Your task to perform on an android device: Go to Yahoo.com Image 0: 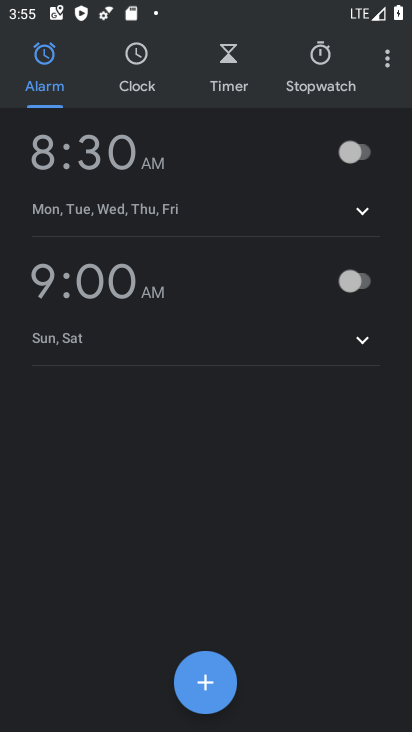
Step 0: press home button
Your task to perform on an android device: Go to Yahoo.com Image 1: 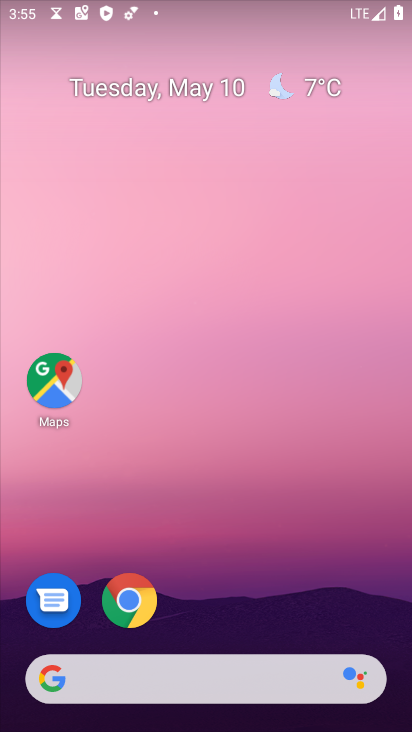
Step 1: click (136, 601)
Your task to perform on an android device: Go to Yahoo.com Image 2: 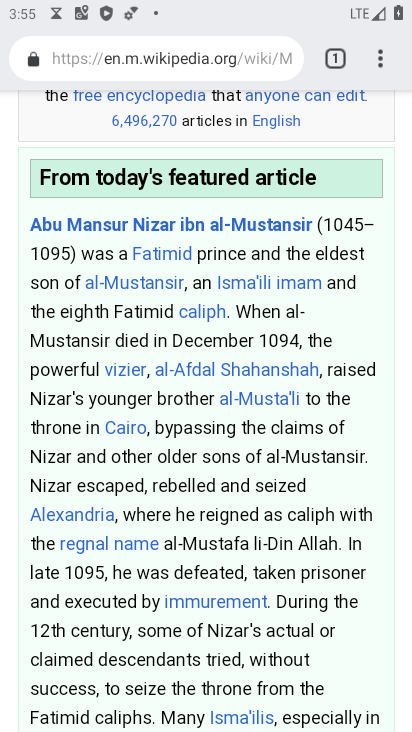
Step 2: click (272, 57)
Your task to perform on an android device: Go to Yahoo.com Image 3: 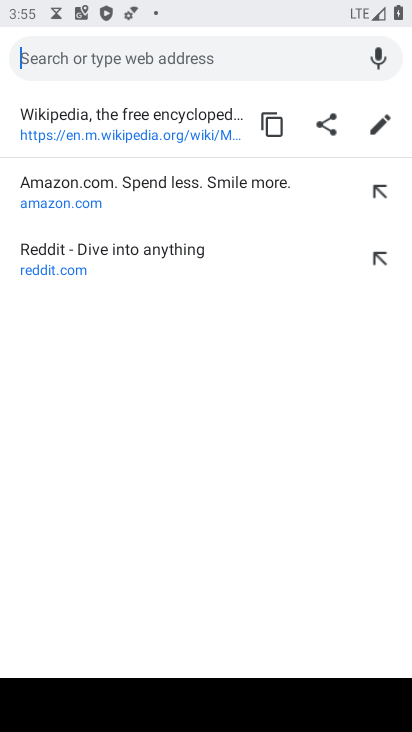
Step 3: click (312, 67)
Your task to perform on an android device: Go to Yahoo.com Image 4: 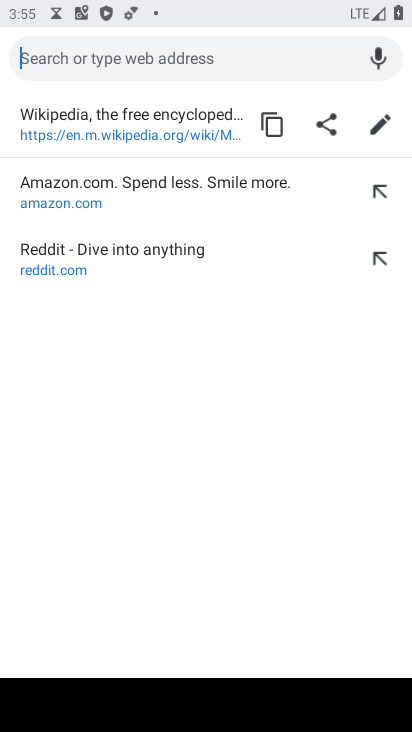
Step 4: press back button
Your task to perform on an android device: Go to Yahoo.com Image 5: 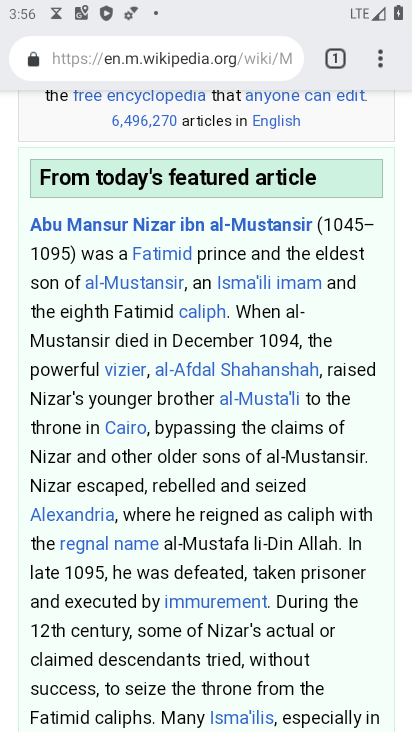
Step 5: click (341, 49)
Your task to perform on an android device: Go to Yahoo.com Image 6: 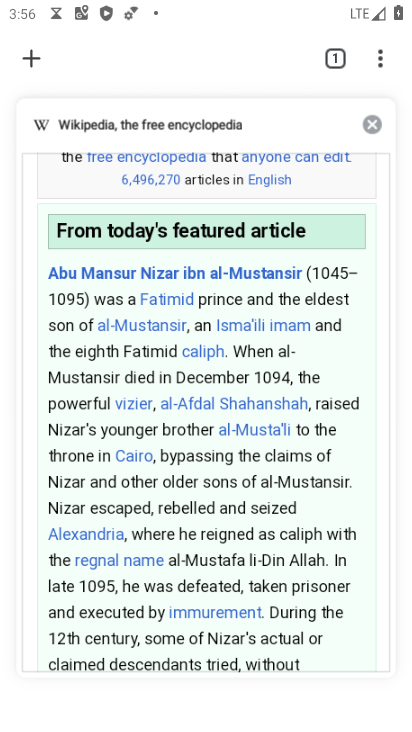
Step 6: click (377, 122)
Your task to perform on an android device: Go to Yahoo.com Image 7: 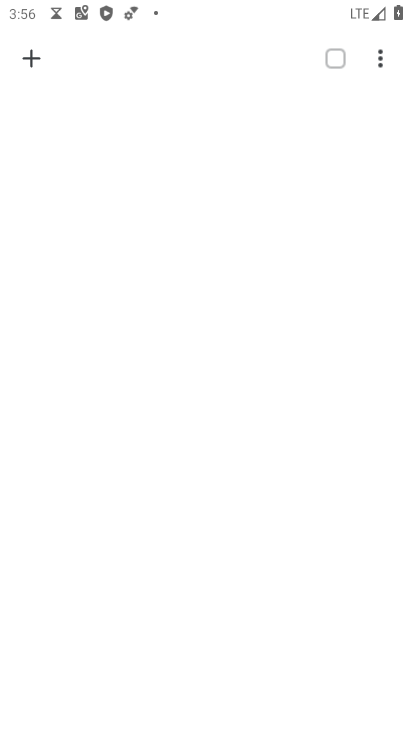
Step 7: press back button
Your task to perform on an android device: Go to Yahoo.com Image 8: 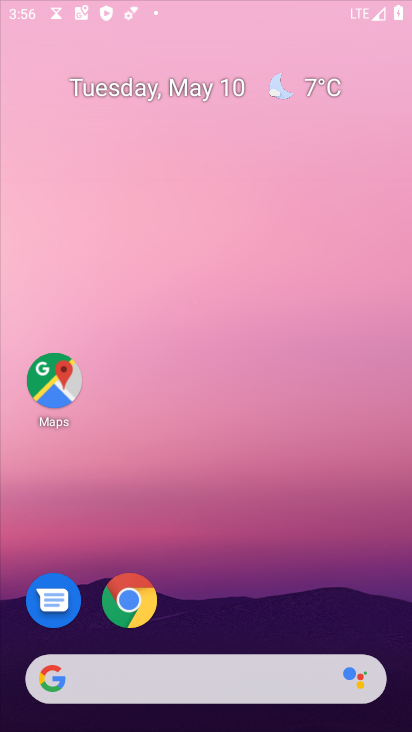
Step 8: press home button
Your task to perform on an android device: Go to Yahoo.com Image 9: 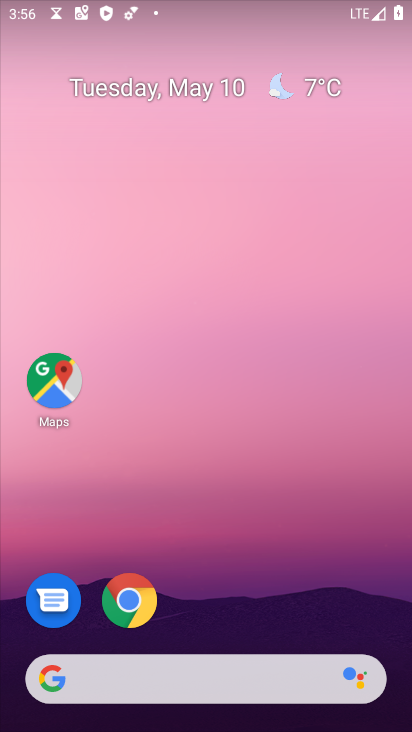
Step 9: click (131, 591)
Your task to perform on an android device: Go to Yahoo.com Image 10: 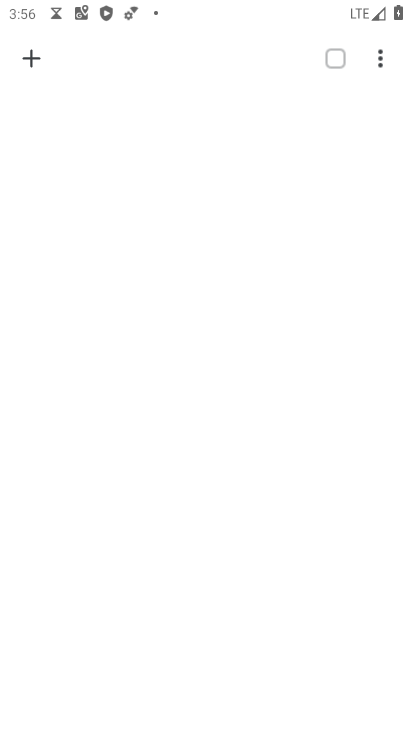
Step 10: click (26, 66)
Your task to perform on an android device: Go to Yahoo.com Image 11: 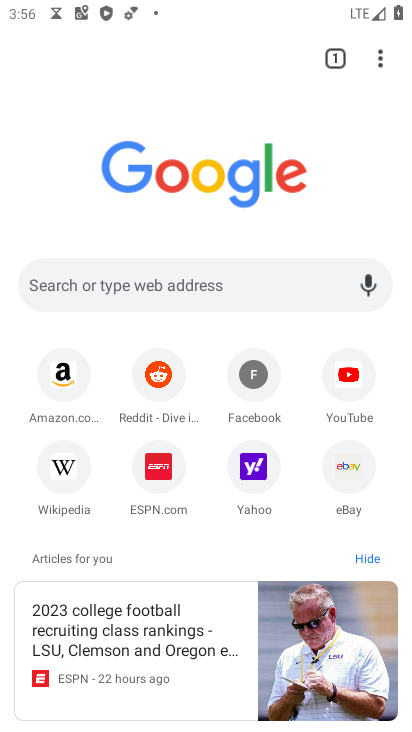
Step 11: click (244, 476)
Your task to perform on an android device: Go to Yahoo.com Image 12: 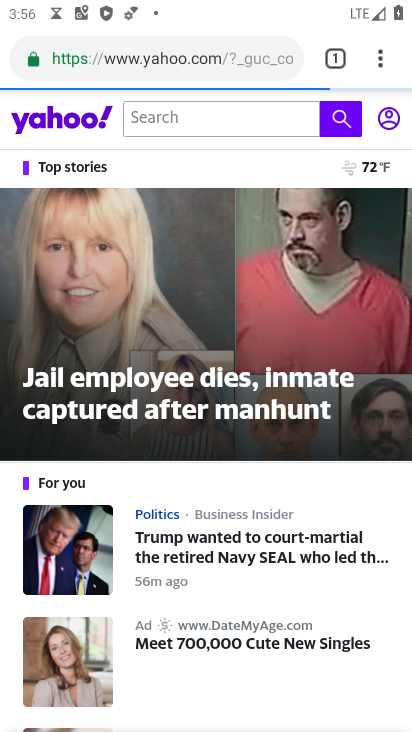
Step 12: task complete